Your task to perform on an android device: Search for Italian restaurants on Maps Image 0: 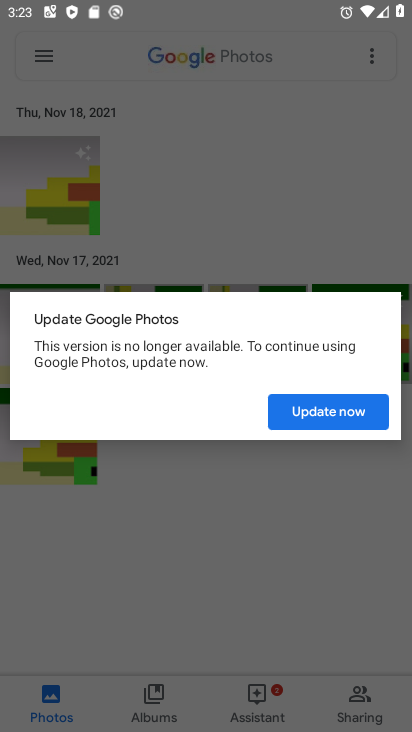
Step 0: press home button
Your task to perform on an android device: Search for Italian restaurants on Maps Image 1: 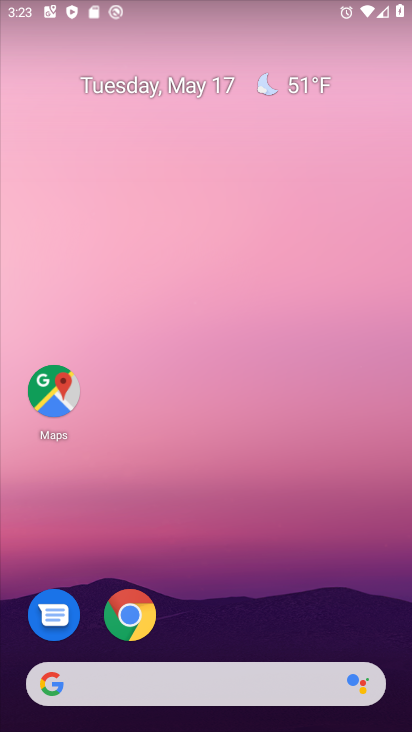
Step 1: click (49, 386)
Your task to perform on an android device: Search for Italian restaurants on Maps Image 2: 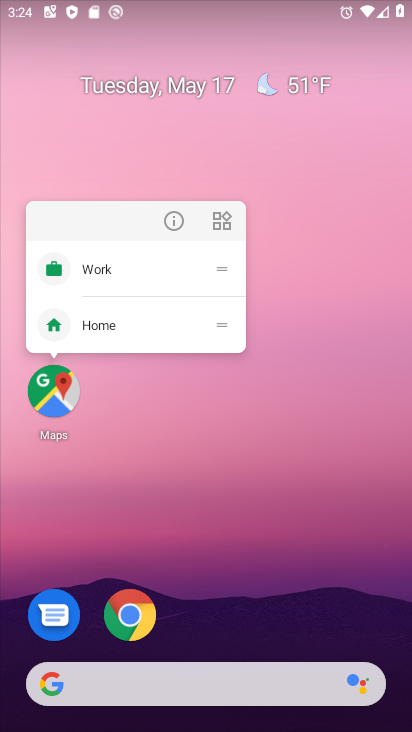
Step 2: click (46, 385)
Your task to perform on an android device: Search for Italian restaurants on Maps Image 3: 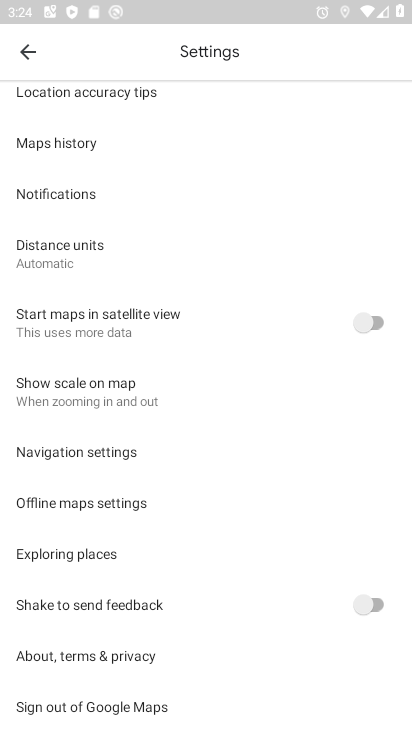
Step 3: click (26, 40)
Your task to perform on an android device: Search for Italian restaurants on Maps Image 4: 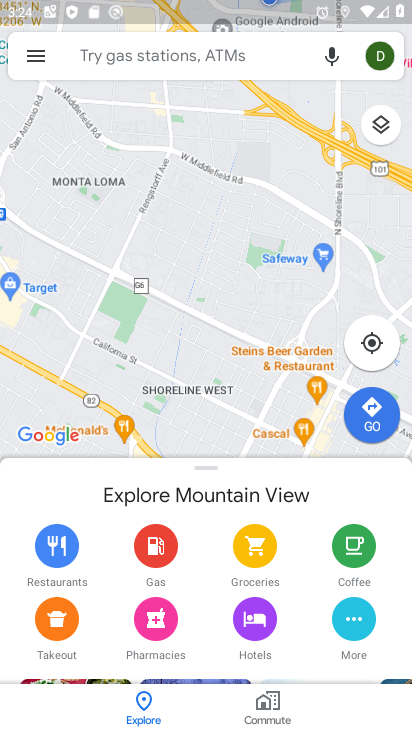
Step 4: click (164, 47)
Your task to perform on an android device: Search for Italian restaurants on Maps Image 5: 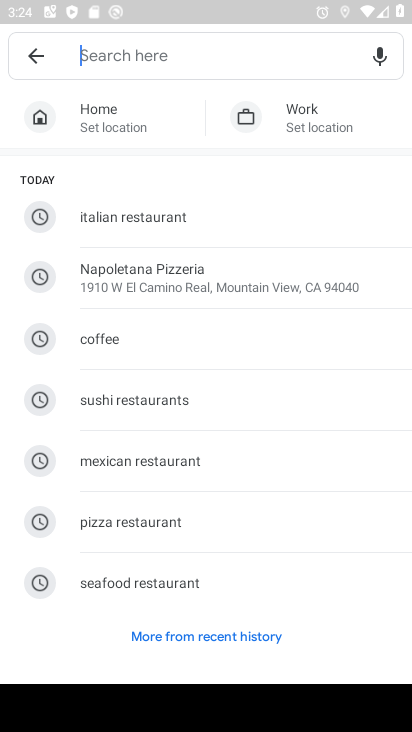
Step 5: click (189, 213)
Your task to perform on an android device: Search for Italian restaurants on Maps Image 6: 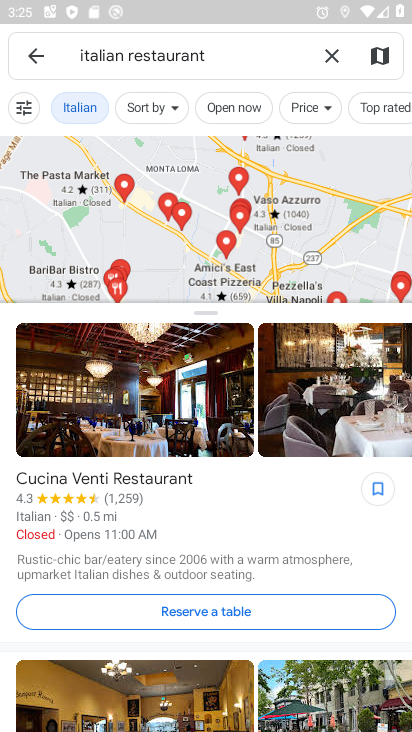
Step 6: task complete